Your task to perform on an android device: Open the web browser Image 0: 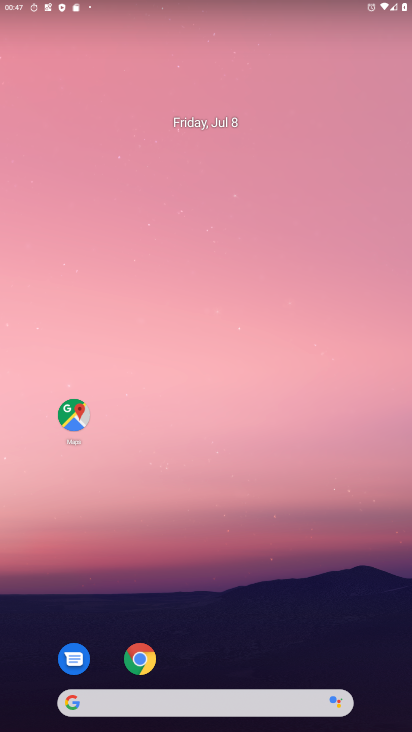
Step 0: click (280, 177)
Your task to perform on an android device: Open the web browser Image 1: 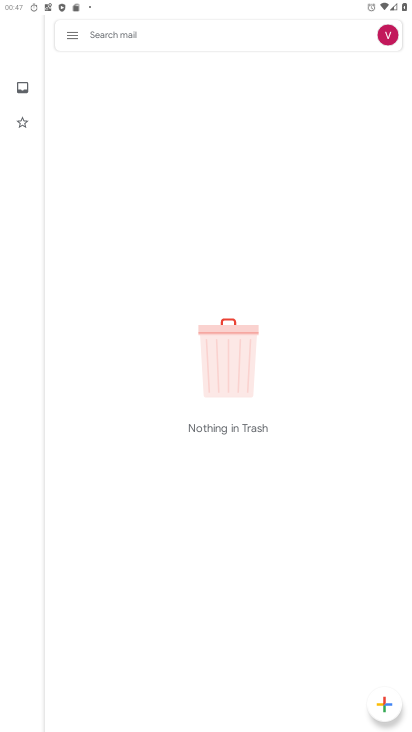
Step 1: press home button
Your task to perform on an android device: Open the web browser Image 2: 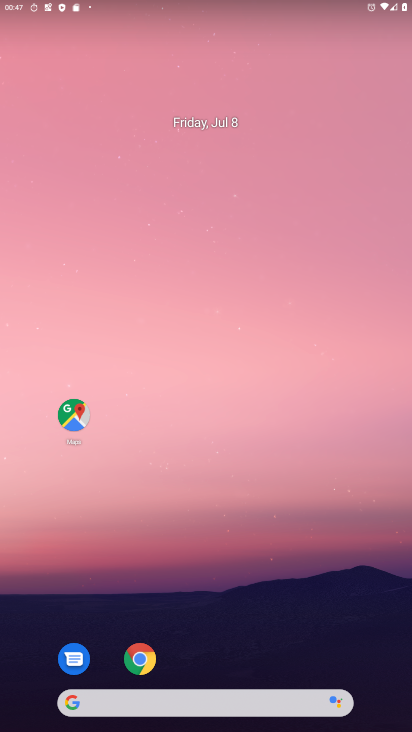
Step 2: click (221, 705)
Your task to perform on an android device: Open the web browser Image 3: 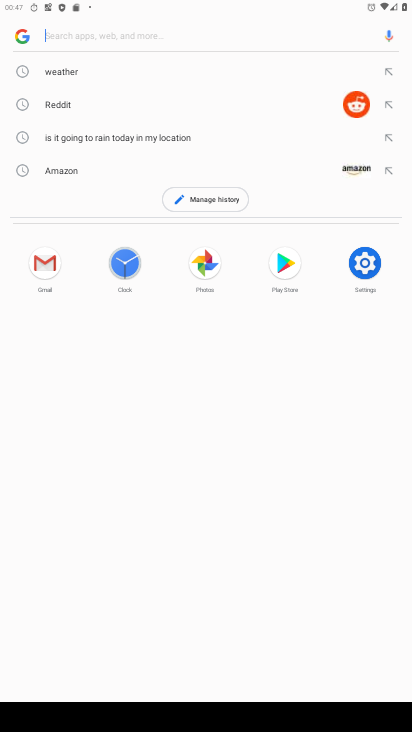
Step 3: task complete